Your task to perform on an android device: turn off translation in the chrome app Image 0: 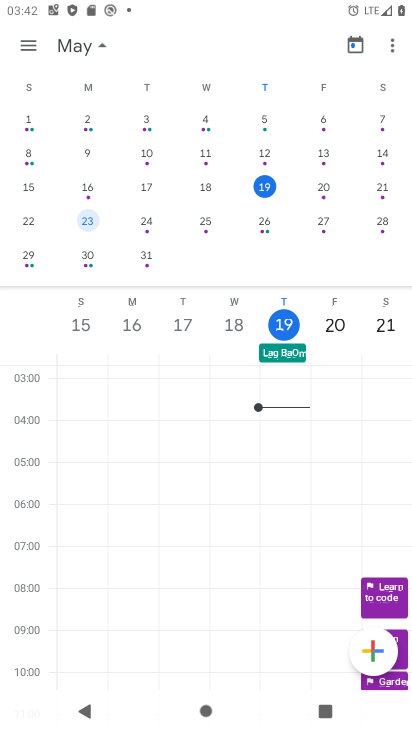
Step 0: press home button
Your task to perform on an android device: turn off translation in the chrome app Image 1: 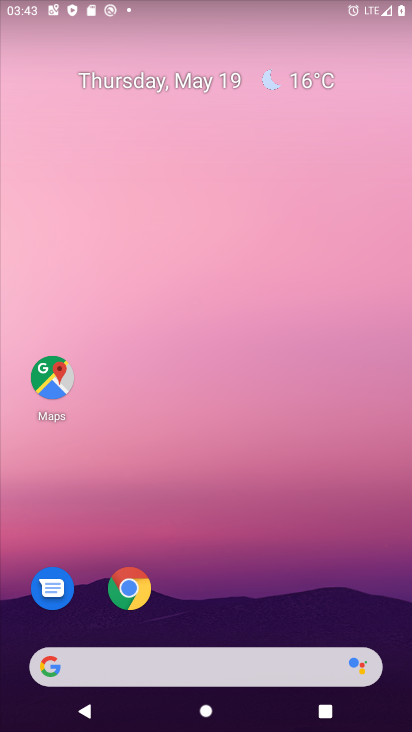
Step 1: click (127, 588)
Your task to perform on an android device: turn off translation in the chrome app Image 2: 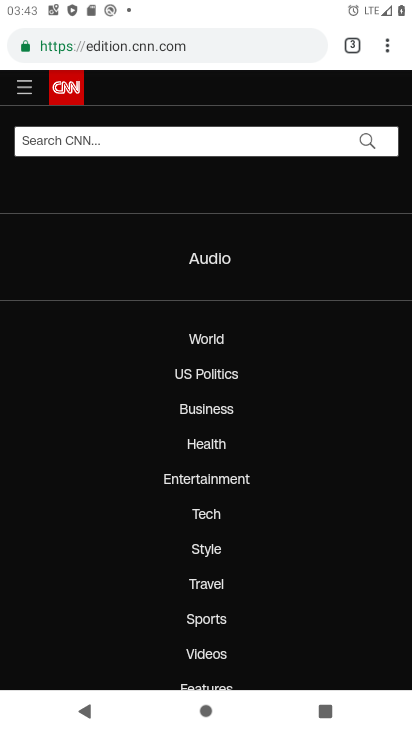
Step 2: drag from (388, 36) to (241, 537)
Your task to perform on an android device: turn off translation in the chrome app Image 3: 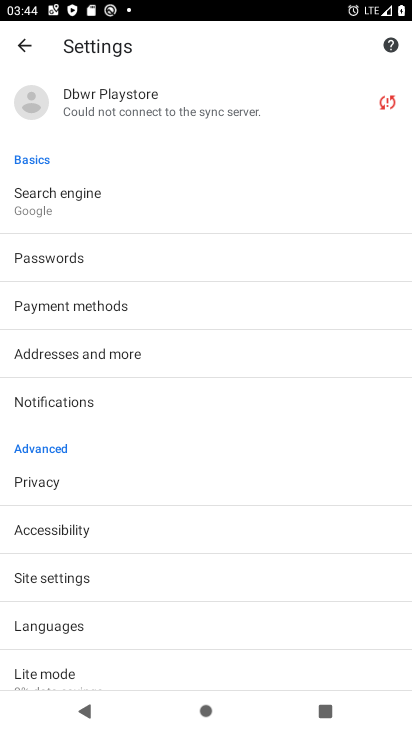
Step 3: click (91, 626)
Your task to perform on an android device: turn off translation in the chrome app Image 4: 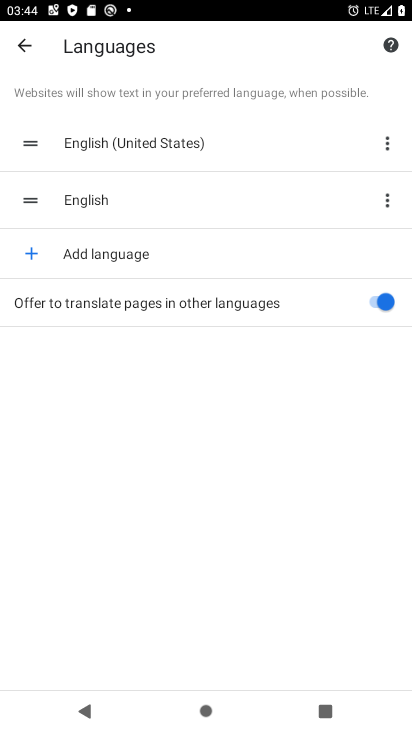
Step 4: click (389, 300)
Your task to perform on an android device: turn off translation in the chrome app Image 5: 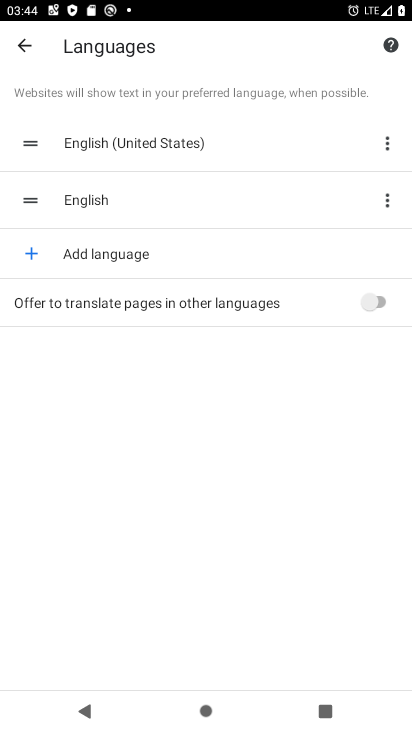
Step 5: task complete